Your task to perform on an android device: turn on notifications settings in the gmail app Image 0: 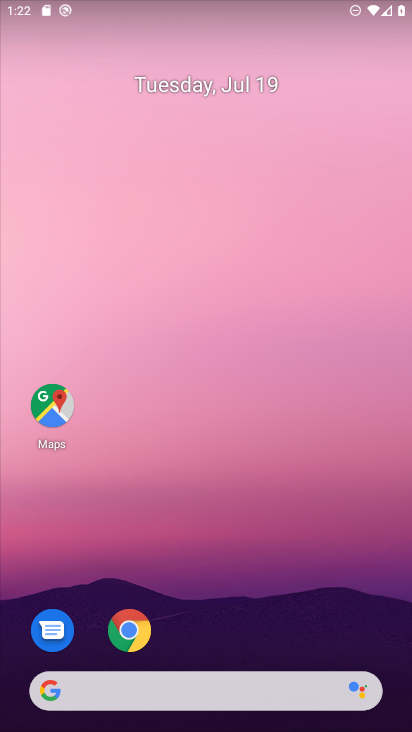
Step 0: drag from (172, 691) to (283, 243)
Your task to perform on an android device: turn on notifications settings in the gmail app Image 1: 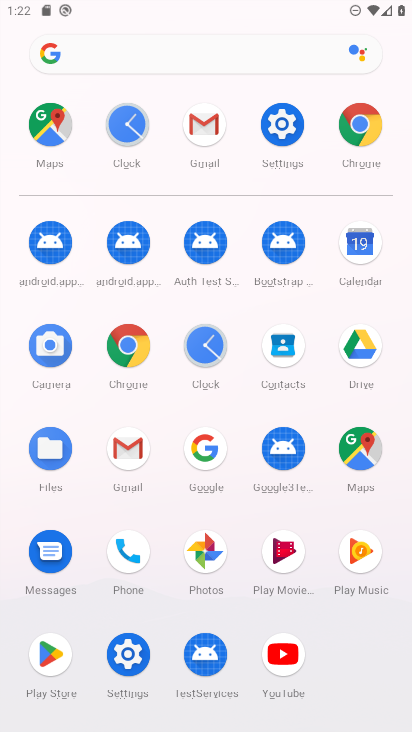
Step 1: click (198, 126)
Your task to perform on an android device: turn on notifications settings in the gmail app Image 2: 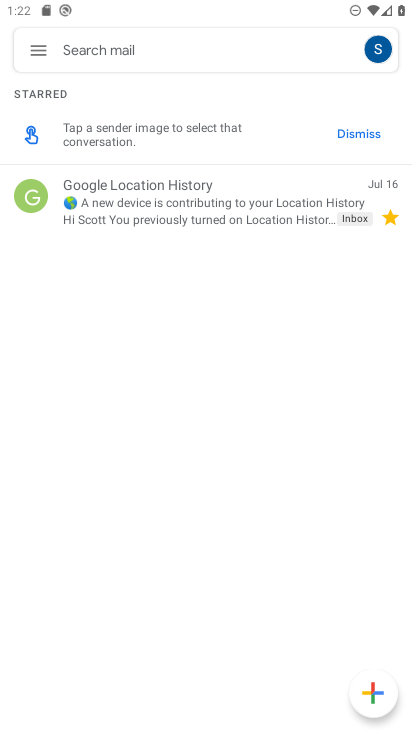
Step 2: click (30, 49)
Your task to perform on an android device: turn on notifications settings in the gmail app Image 3: 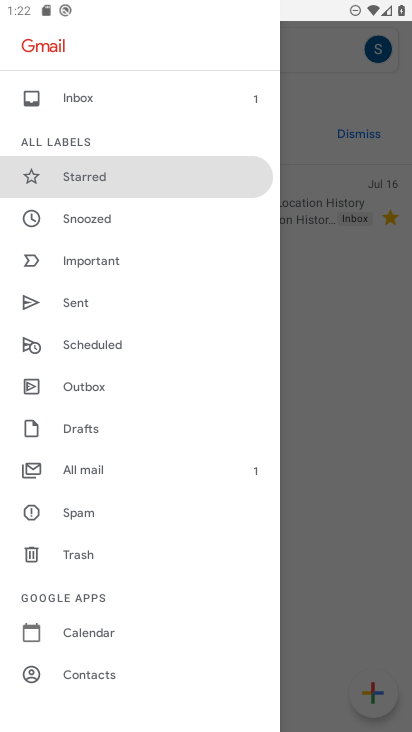
Step 3: drag from (200, 597) to (275, 52)
Your task to perform on an android device: turn on notifications settings in the gmail app Image 4: 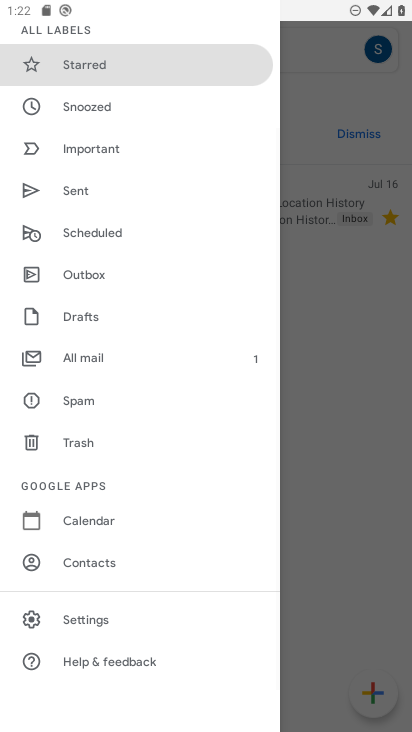
Step 4: click (104, 623)
Your task to perform on an android device: turn on notifications settings in the gmail app Image 5: 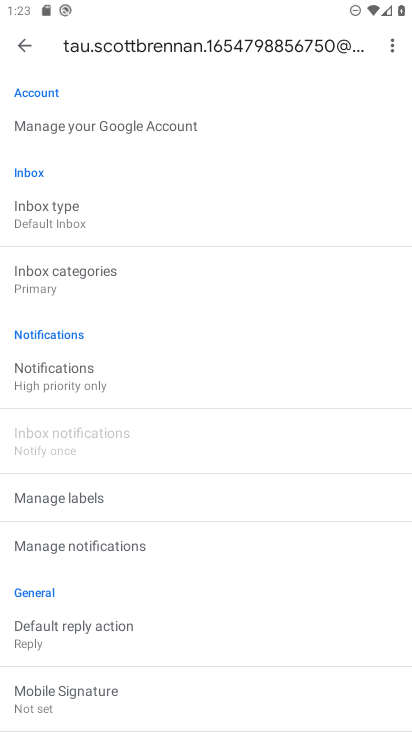
Step 5: click (53, 371)
Your task to perform on an android device: turn on notifications settings in the gmail app Image 6: 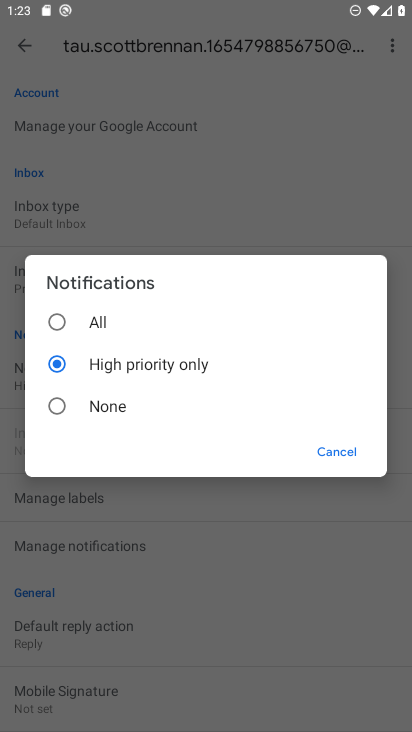
Step 6: click (54, 315)
Your task to perform on an android device: turn on notifications settings in the gmail app Image 7: 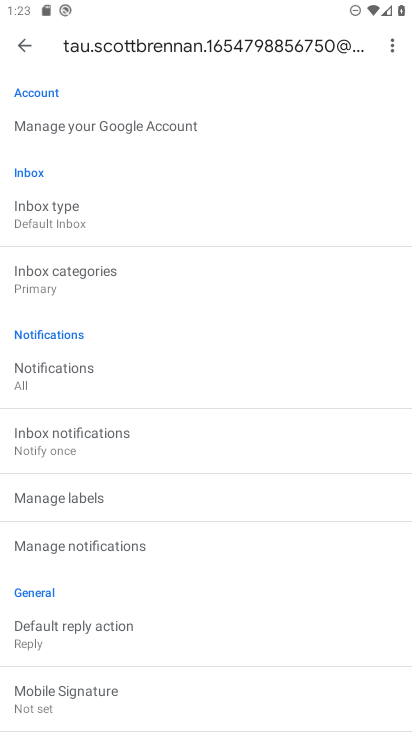
Step 7: task complete